Your task to perform on an android device: Open the Play Movies app and select the watchlist tab. Image 0: 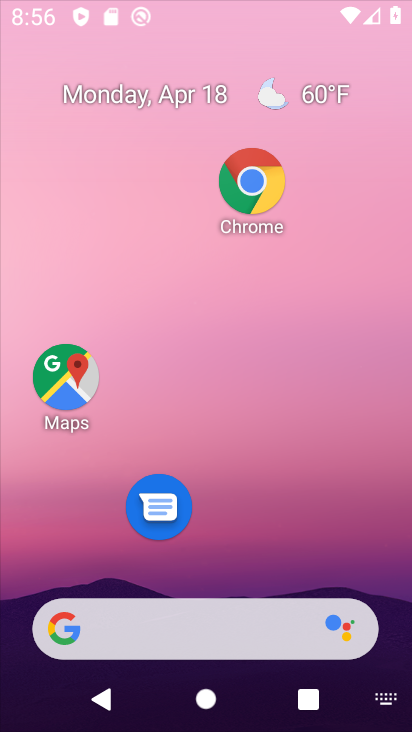
Step 0: drag from (143, 314) to (137, 43)
Your task to perform on an android device: Open the Play Movies app and select the watchlist tab. Image 1: 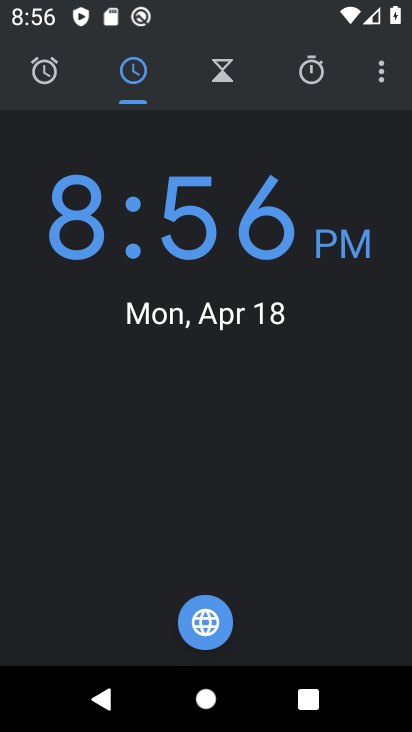
Step 1: press back button
Your task to perform on an android device: Open the Play Movies app and select the watchlist tab. Image 2: 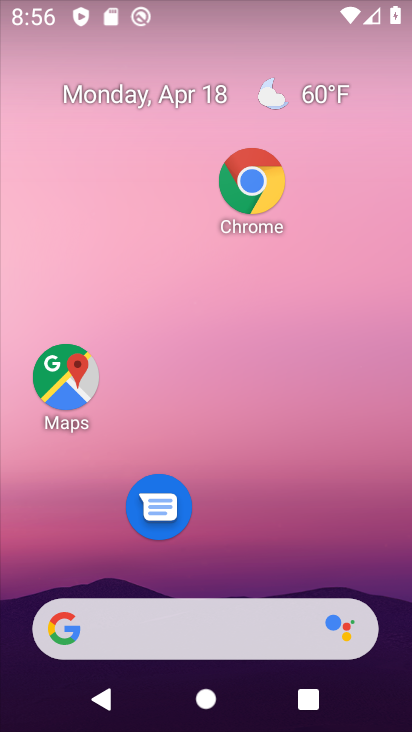
Step 2: drag from (98, 615) to (81, 103)
Your task to perform on an android device: Open the Play Movies app and select the watchlist tab. Image 3: 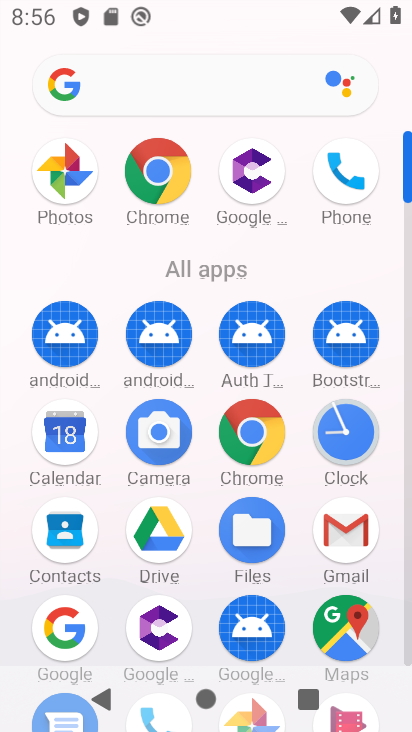
Step 3: drag from (196, 562) to (204, 240)
Your task to perform on an android device: Open the Play Movies app and select the watchlist tab. Image 4: 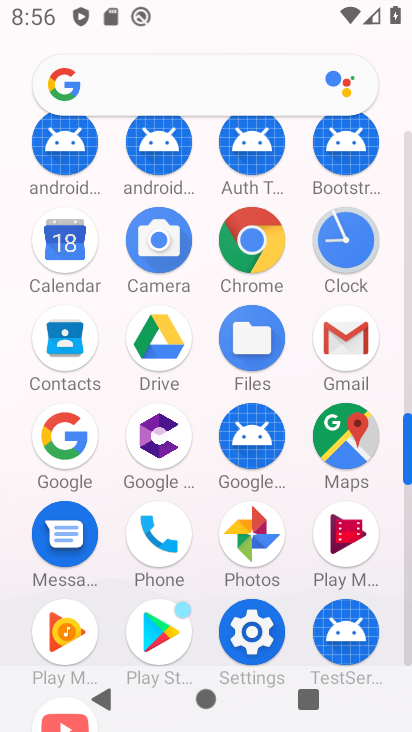
Step 4: click (340, 517)
Your task to perform on an android device: Open the Play Movies app and select the watchlist tab. Image 5: 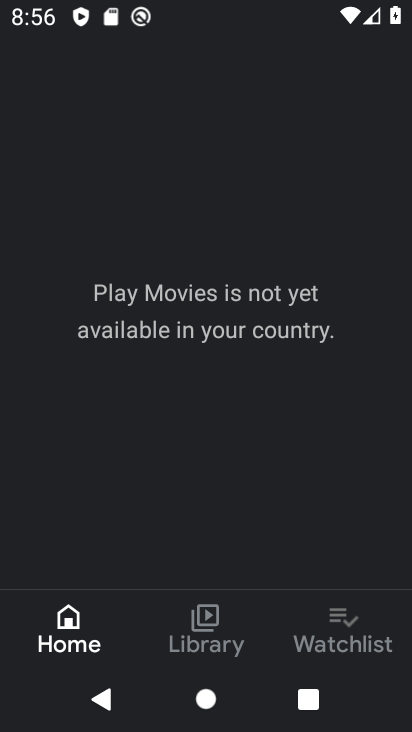
Step 5: click (346, 635)
Your task to perform on an android device: Open the Play Movies app and select the watchlist tab. Image 6: 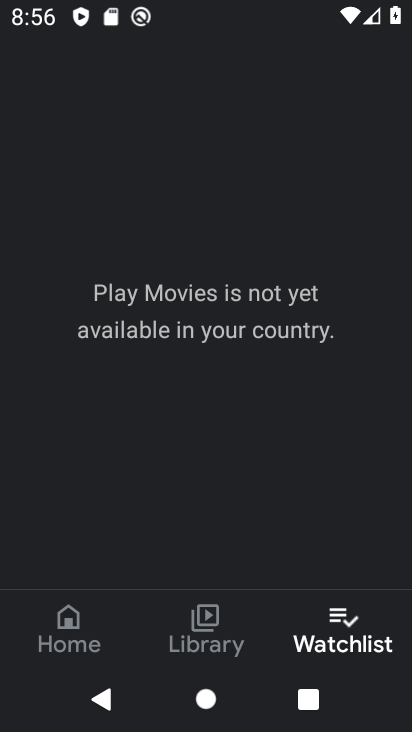
Step 6: task complete